Your task to perform on an android device: turn on priority inbox in the gmail app Image 0: 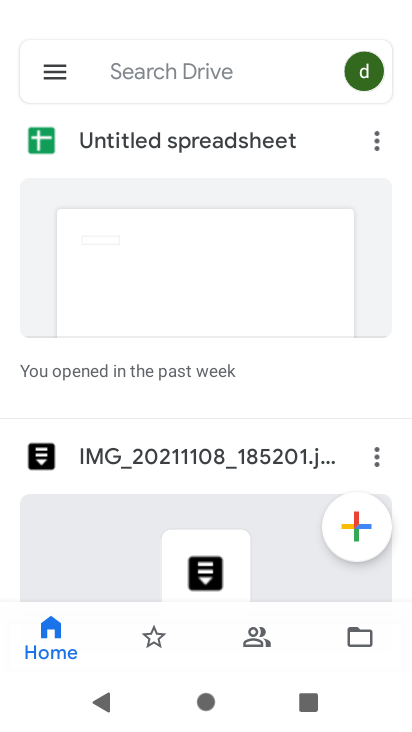
Step 0: press back button
Your task to perform on an android device: turn on priority inbox in the gmail app Image 1: 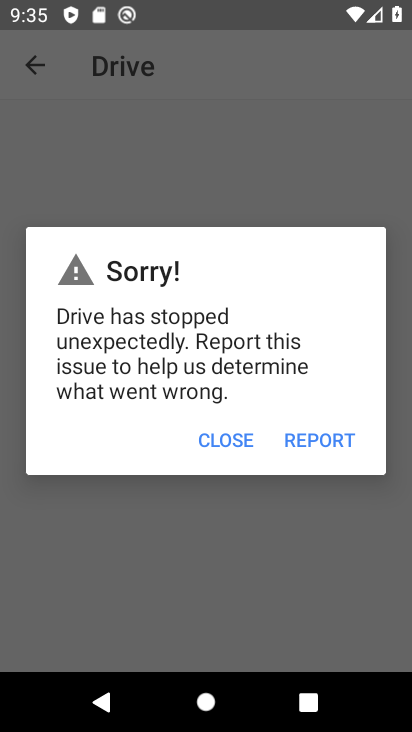
Step 1: press home button
Your task to perform on an android device: turn on priority inbox in the gmail app Image 2: 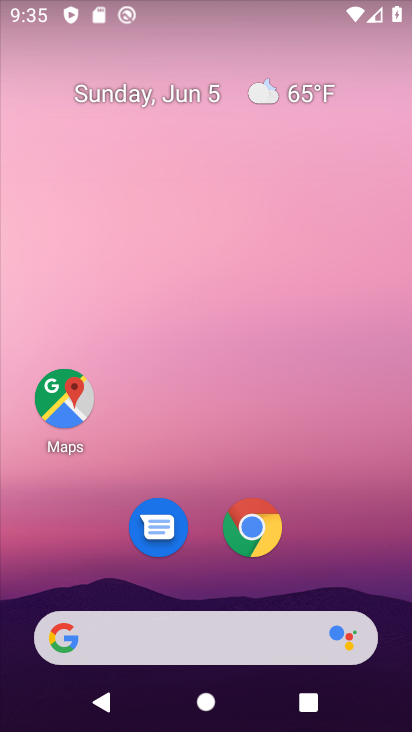
Step 2: drag from (219, 525) to (252, 30)
Your task to perform on an android device: turn on priority inbox in the gmail app Image 3: 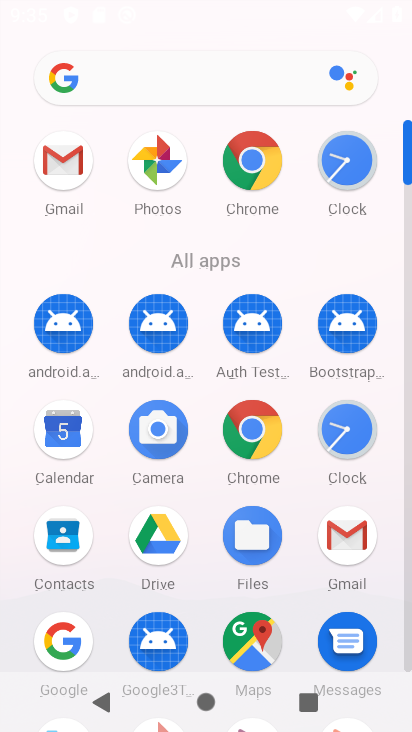
Step 3: click (54, 158)
Your task to perform on an android device: turn on priority inbox in the gmail app Image 4: 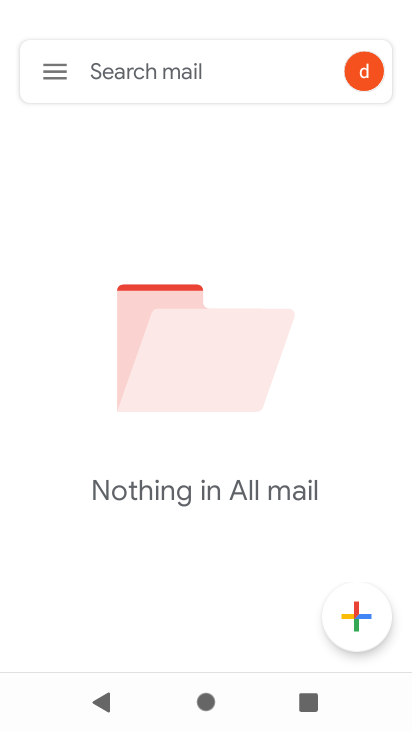
Step 4: click (54, 65)
Your task to perform on an android device: turn on priority inbox in the gmail app Image 5: 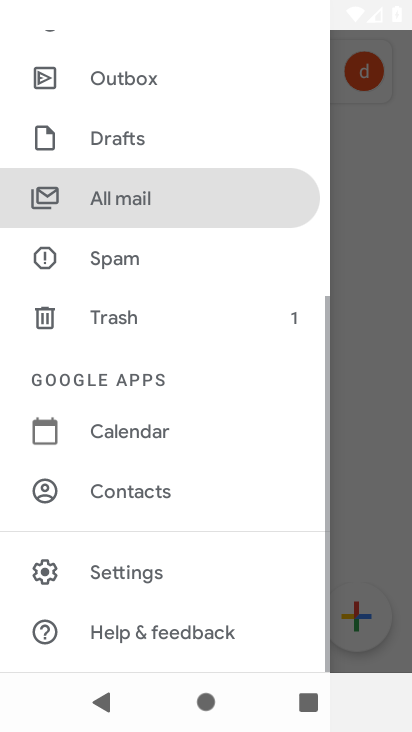
Step 5: click (129, 559)
Your task to perform on an android device: turn on priority inbox in the gmail app Image 6: 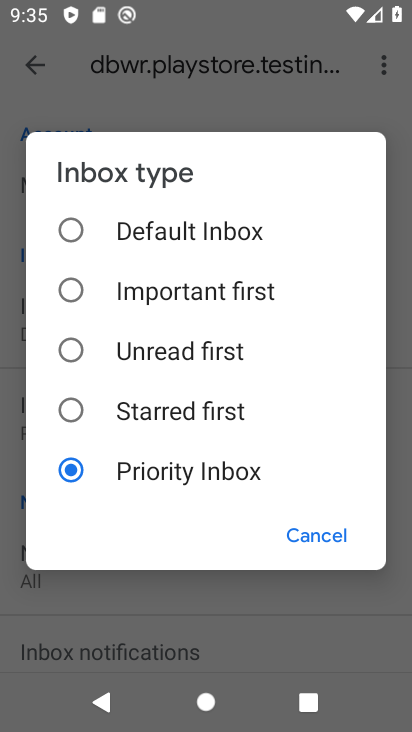
Step 6: task complete